Your task to perform on an android device: empty trash in the gmail app Image 0: 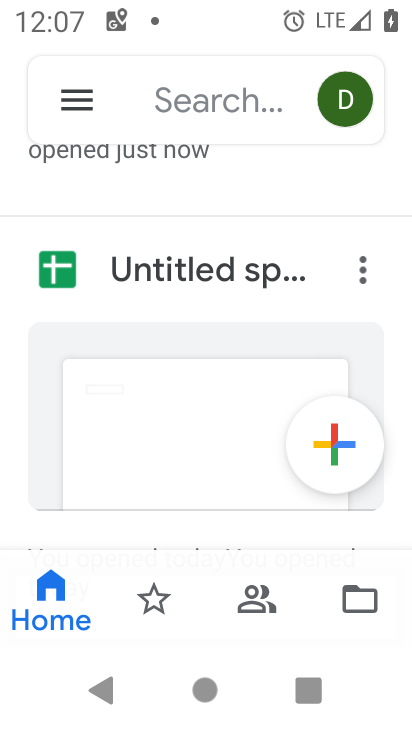
Step 0: press home button
Your task to perform on an android device: empty trash in the gmail app Image 1: 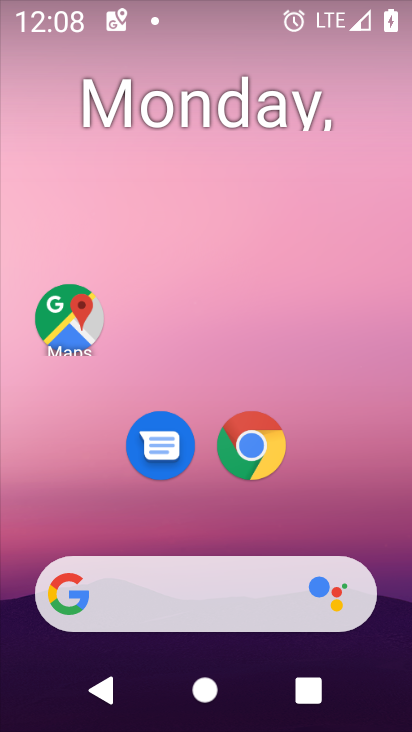
Step 1: drag from (203, 505) to (229, 248)
Your task to perform on an android device: empty trash in the gmail app Image 2: 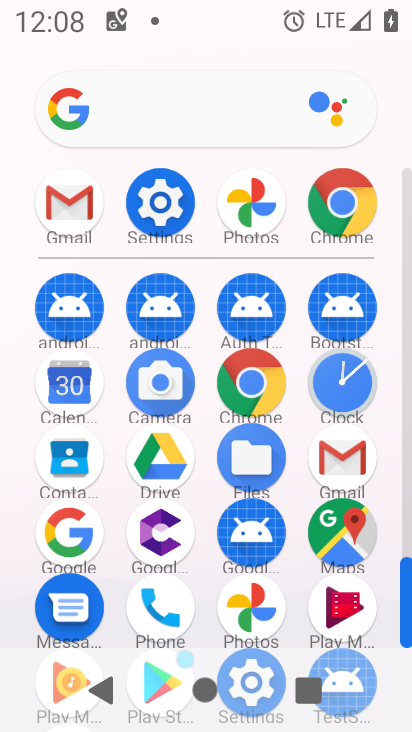
Step 2: click (345, 450)
Your task to perform on an android device: empty trash in the gmail app Image 3: 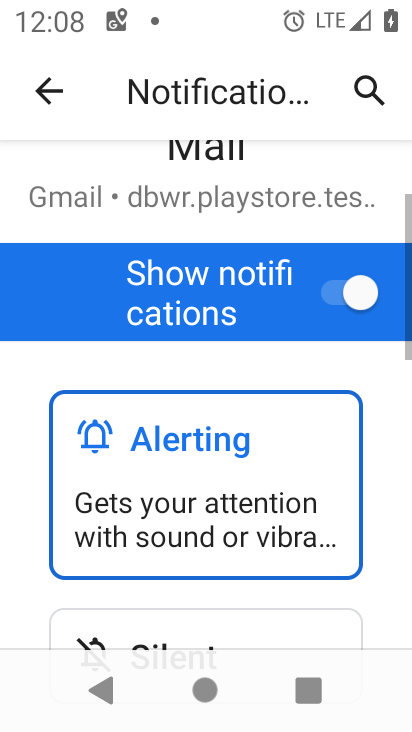
Step 3: drag from (193, 584) to (302, 279)
Your task to perform on an android device: empty trash in the gmail app Image 4: 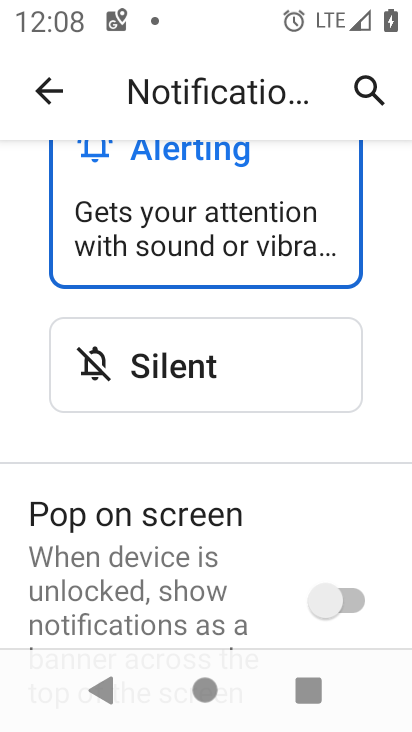
Step 4: drag from (303, 256) to (275, 658)
Your task to perform on an android device: empty trash in the gmail app Image 5: 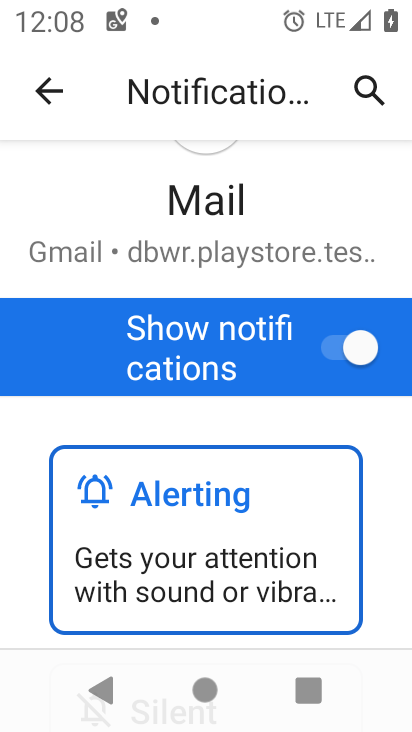
Step 5: click (49, 75)
Your task to perform on an android device: empty trash in the gmail app Image 6: 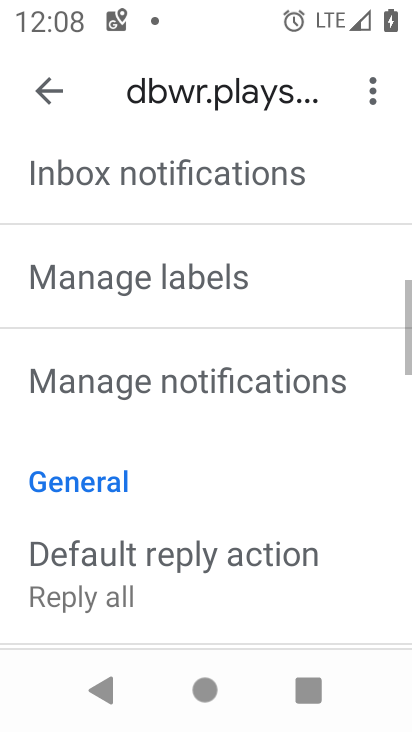
Step 6: click (49, 75)
Your task to perform on an android device: empty trash in the gmail app Image 7: 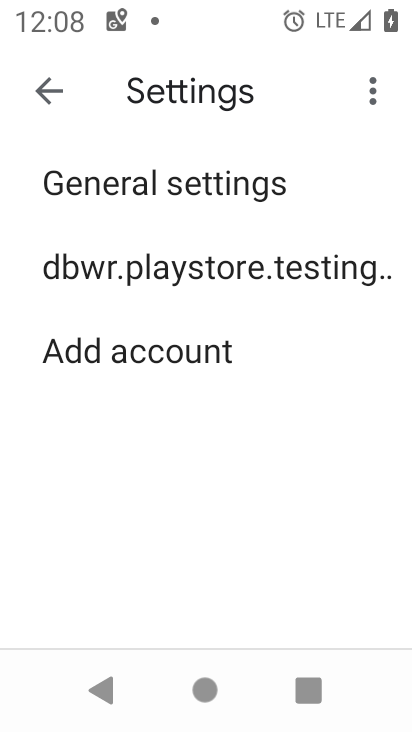
Step 7: click (50, 77)
Your task to perform on an android device: empty trash in the gmail app Image 8: 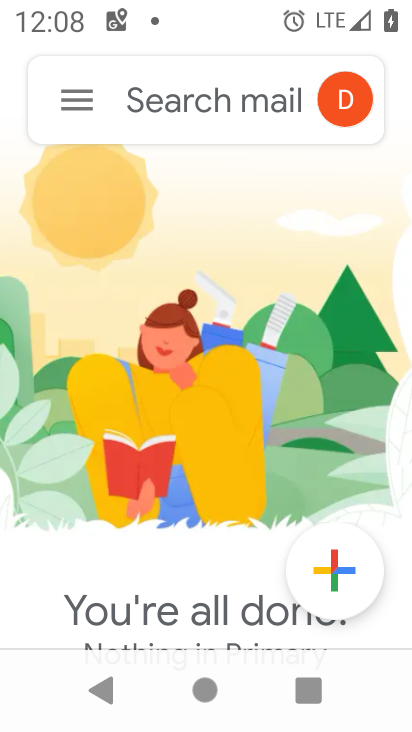
Step 8: click (74, 95)
Your task to perform on an android device: empty trash in the gmail app Image 9: 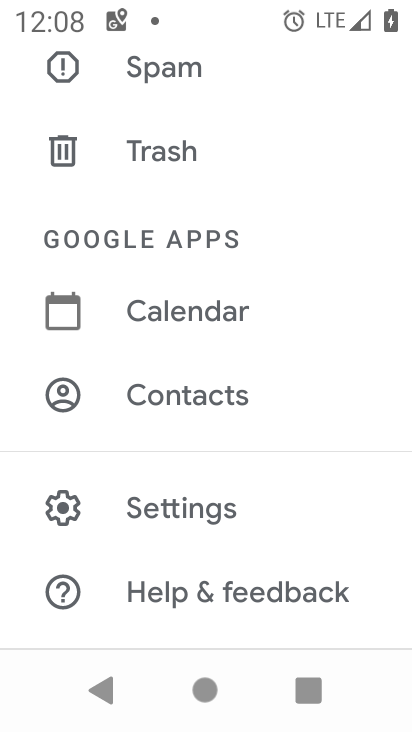
Step 9: click (176, 161)
Your task to perform on an android device: empty trash in the gmail app Image 10: 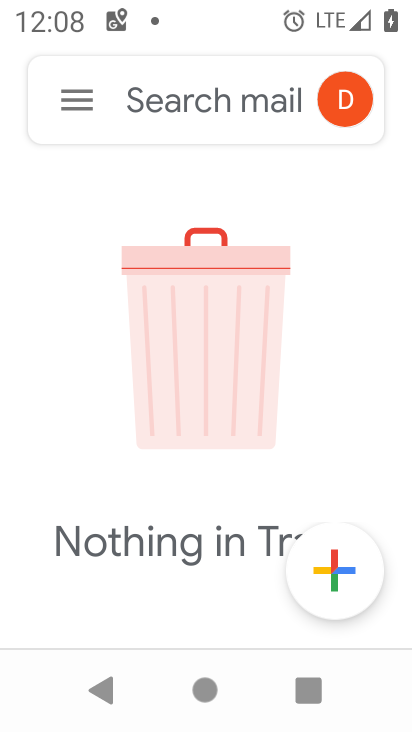
Step 10: task complete